Your task to perform on an android device: Search for Mexican restaurants on Maps Image 0: 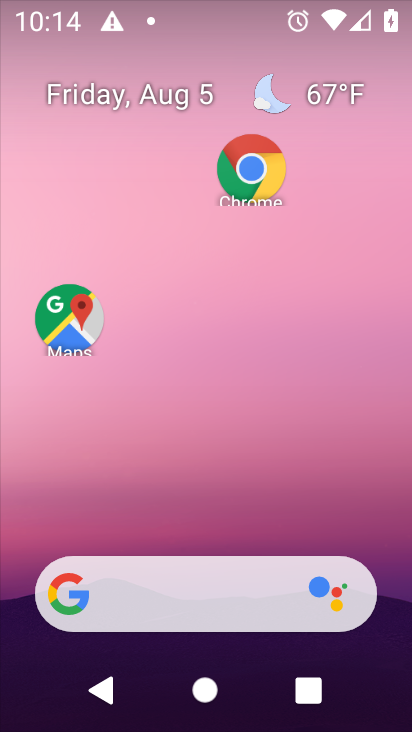
Step 0: click (73, 338)
Your task to perform on an android device: Search for Mexican restaurants on Maps Image 1: 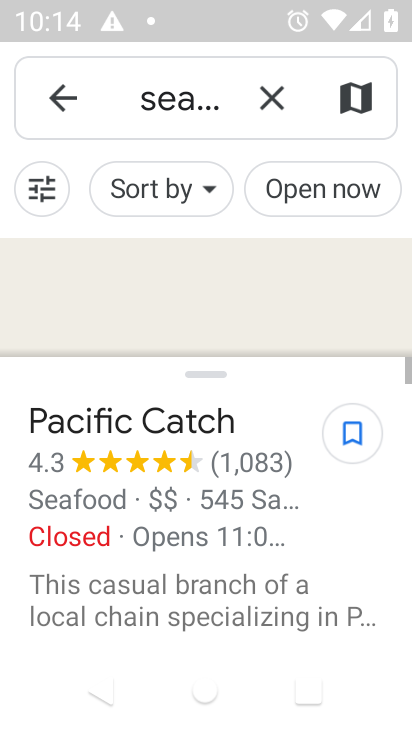
Step 1: click (257, 84)
Your task to perform on an android device: Search for Mexican restaurants on Maps Image 2: 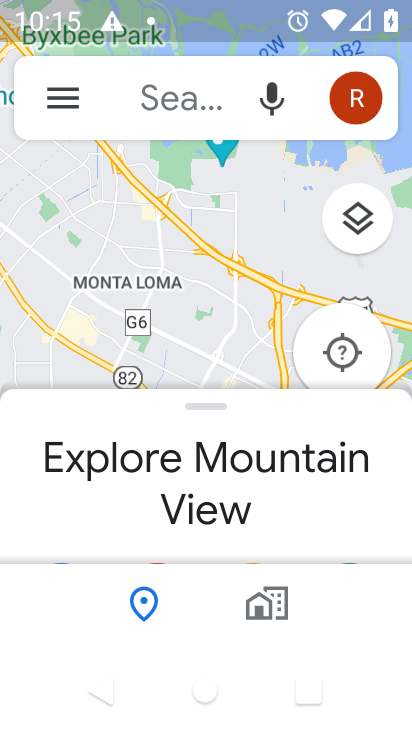
Step 2: click (188, 107)
Your task to perform on an android device: Search for Mexican restaurants on Maps Image 3: 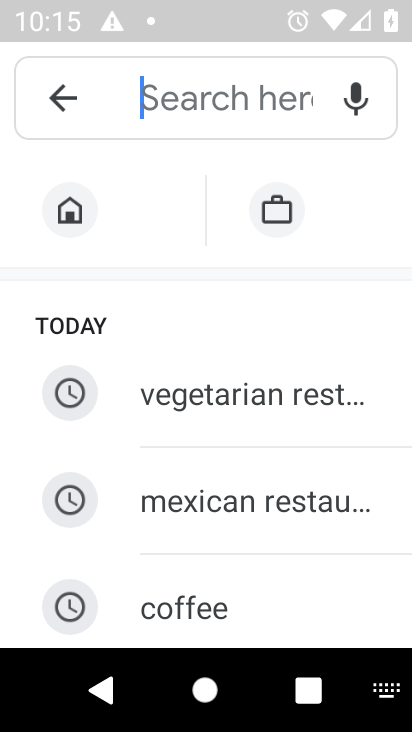
Step 3: click (204, 499)
Your task to perform on an android device: Search for Mexican restaurants on Maps Image 4: 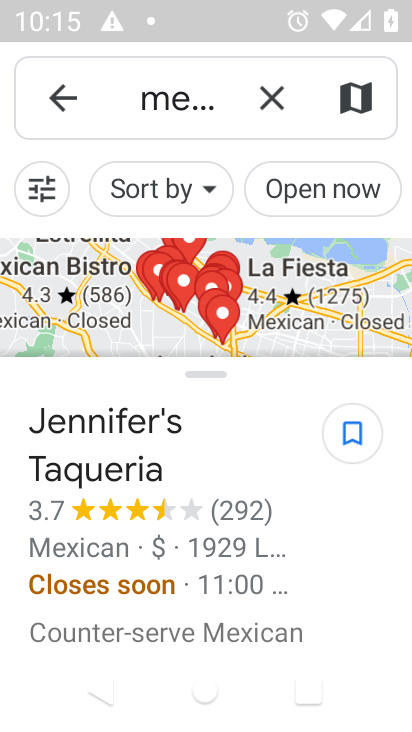
Step 4: task complete